Your task to perform on an android device: Open battery settings Image 0: 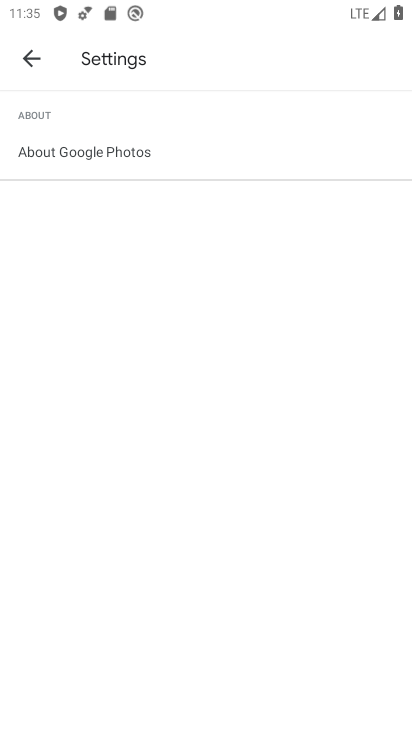
Step 0: press home button
Your task to perform on an android device: Open battery settings Image 1: 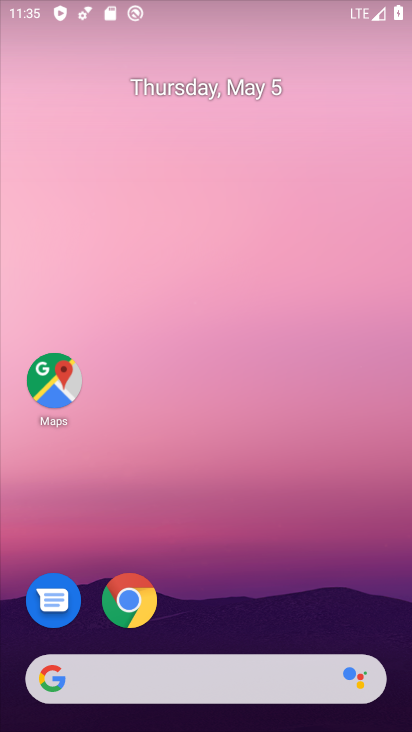
Step 1: drag from (365, 631) to (267, 84)
Your task to perform on an android device: Open battery settings Image 2: 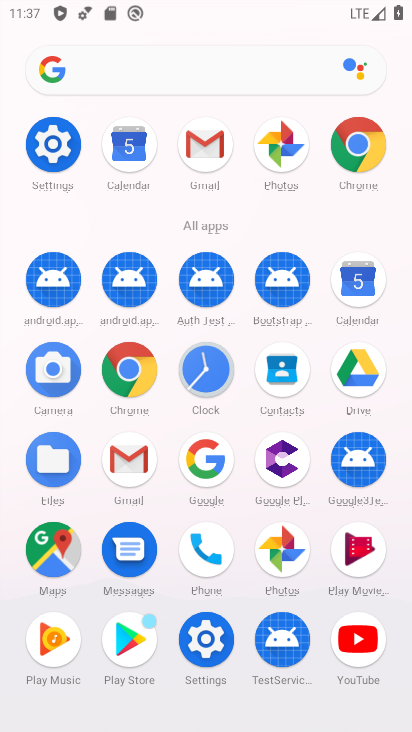
Step 2: click (206, 630)
Your task to perform on an android device: Open battery settings Image 3: 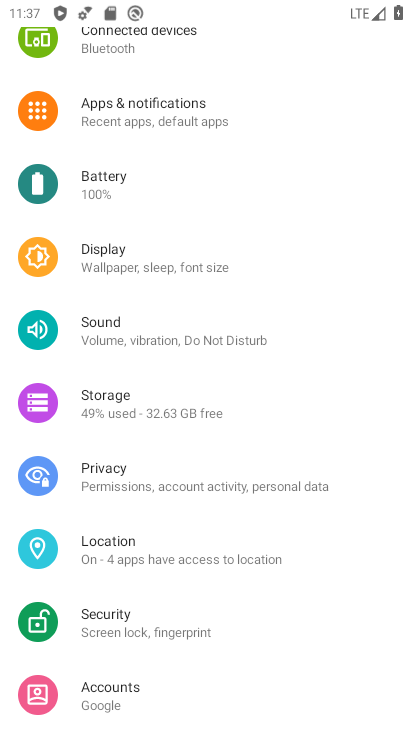
Step 3: click (137, 191)
Your task to perform on an android device: Open battery settings Image 4: 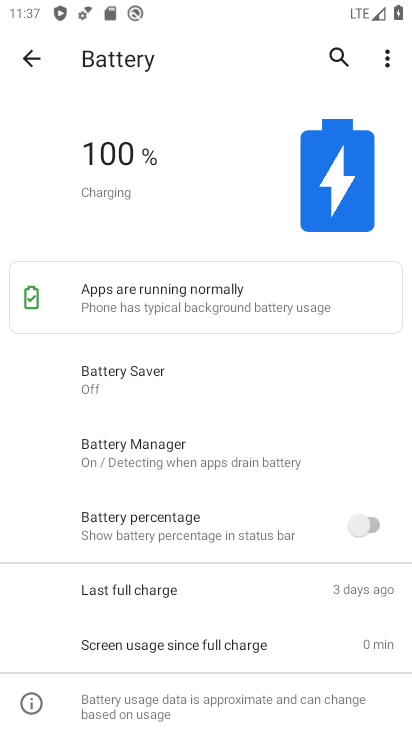
Step 4: task complete